Your task to perform on an android device: turn off data saver in the chrome app Image 0: 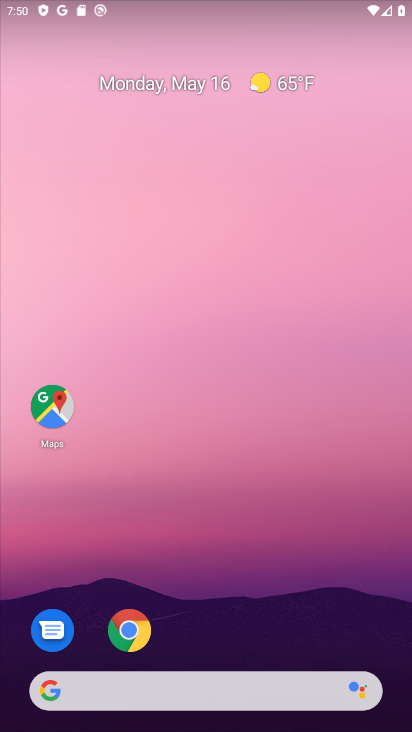
Step 0: click (106, 630)
Your task to perform on an android device: turn off data saver in the chrome app Image 1: 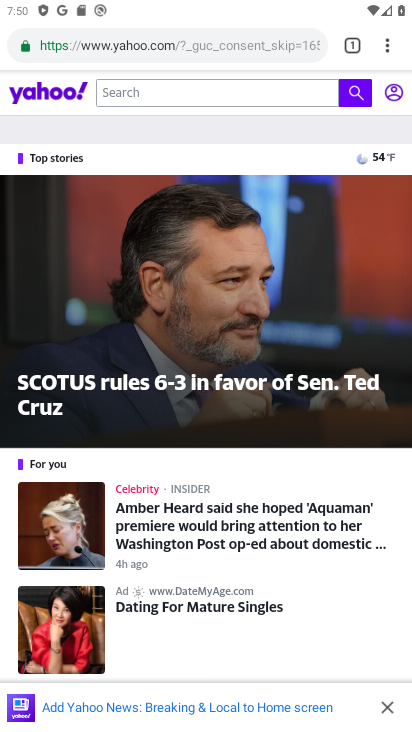
Step 1: click (385, 48)
Your task to perform on an android device: turn off data saver in the chrome app Image 2: 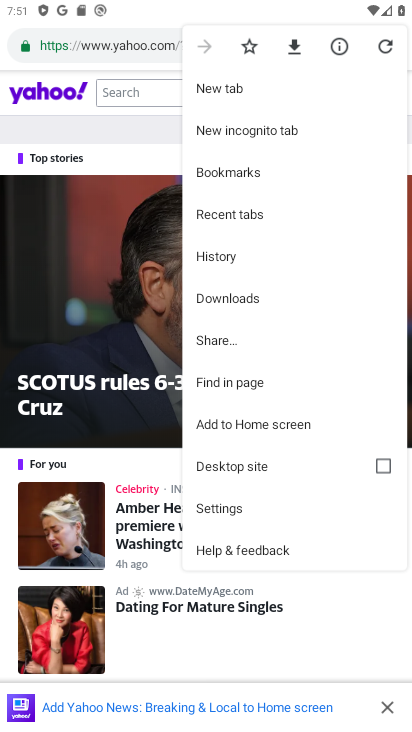
Step 2: click (224, 511)
Your task to perform on an android device: turn off data saver in the chrome app Image 3: 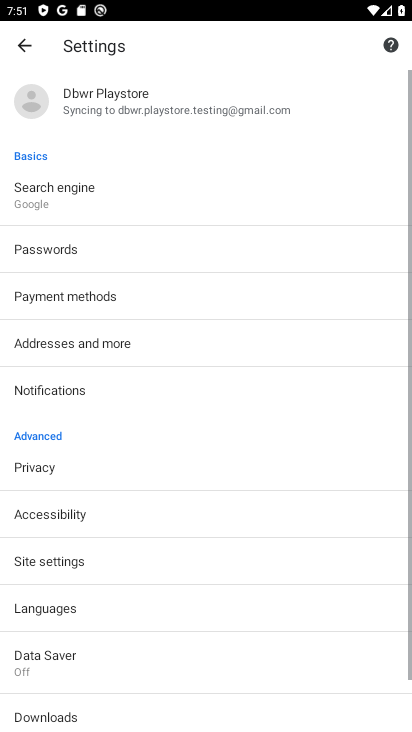
Step 3: drag from (193, 671) to (178, 506)
Your task to perform on an android device: turn off data saver in the chrome app Image 4: 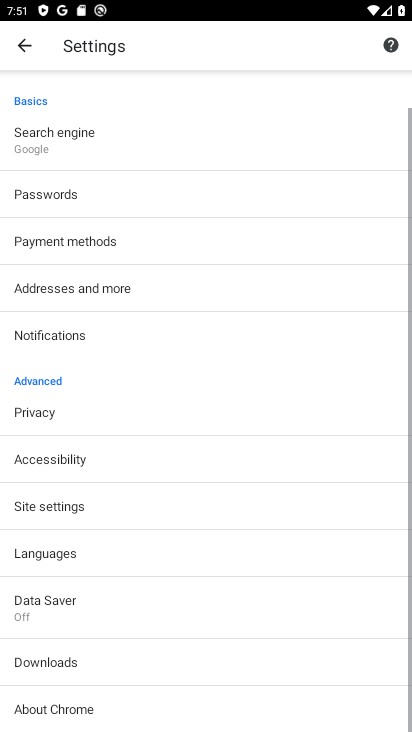
Step 4: click (66, 601)
Your task to perform on an android device: turn off data saver in the chrome app Image 5: 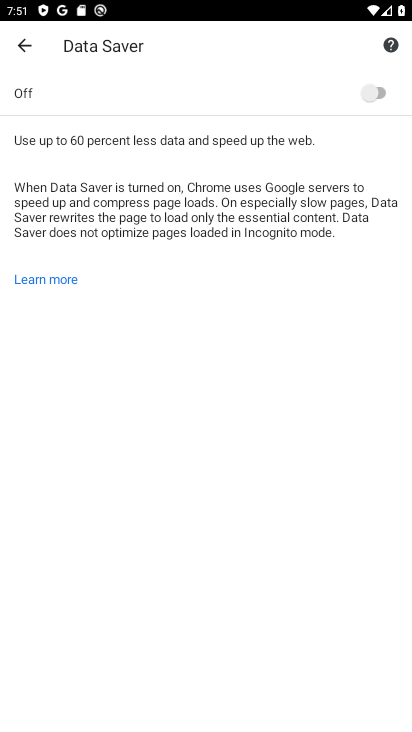
Step 5: task complete